Your task to perform on an android device: delete browsing data in the chrome app Image 0: 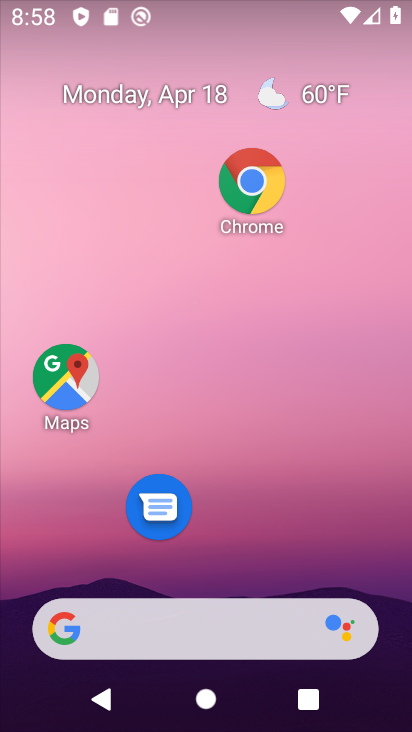
Step 0: click (255, 209)
Your task to perform on an android device: delete browsing data in the chrome app Image 1: 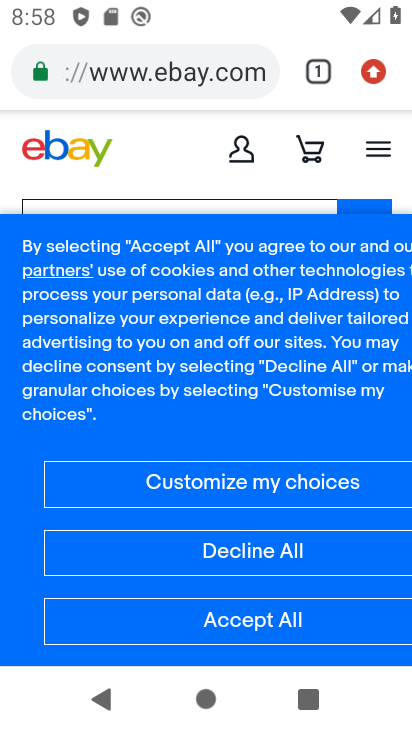
Step 1: drag from (371, 69) to (209, 499)
Your task to perform on an android device: delete browsing data in the chrome app Image 2: 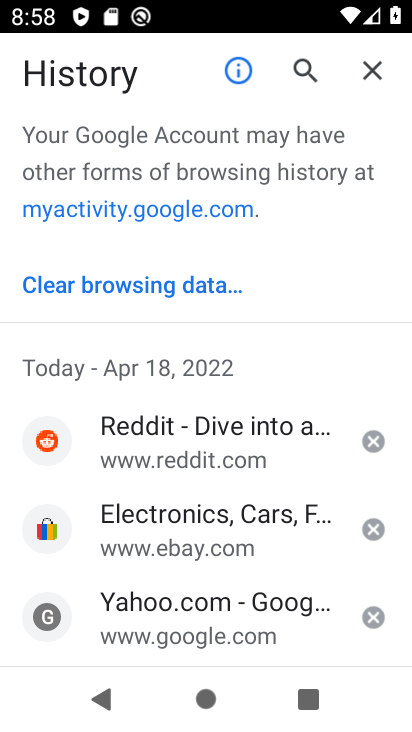
Step 2: click (155, 284)
Your task to perform on an android device: delete browsing data in the chrome app Image 3: 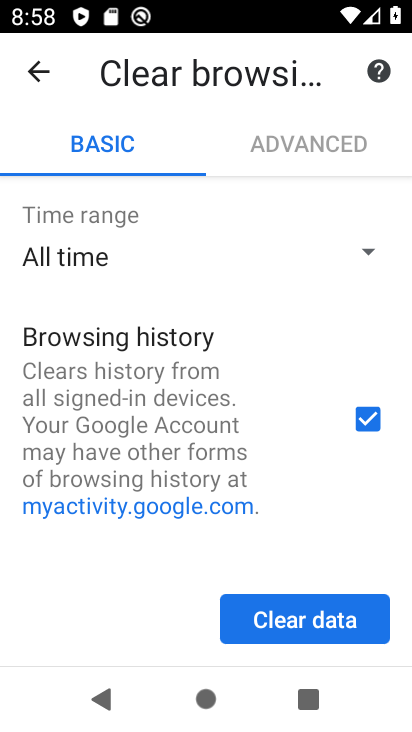
Step 3: click (321, 618)
Your task to perform on an android device: delete browsing data in the chrome app Image 4: 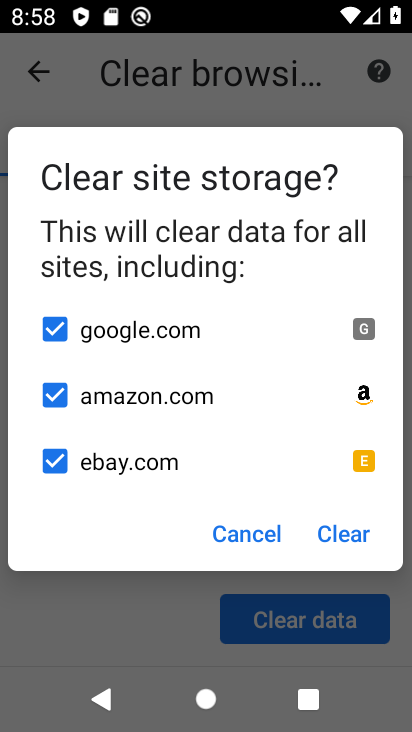
Step 4: click (350, 535)
Your task to perform on an android device: delete browsing data in the chrome app Image 5: 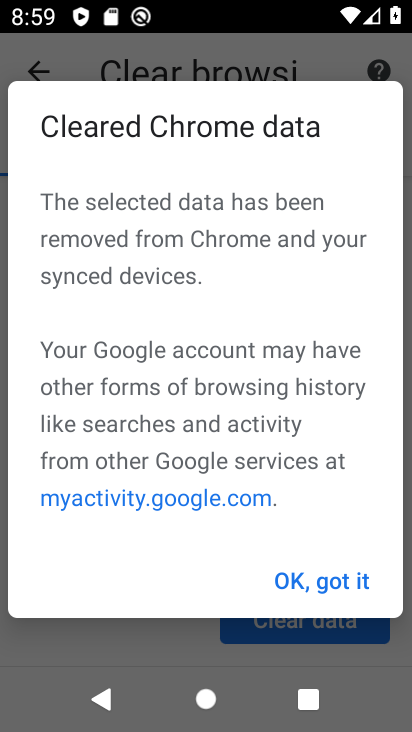
Step 5: click (310, 592)
Your task to perform on an android device: delete browsing data in the chrome app Image 6: 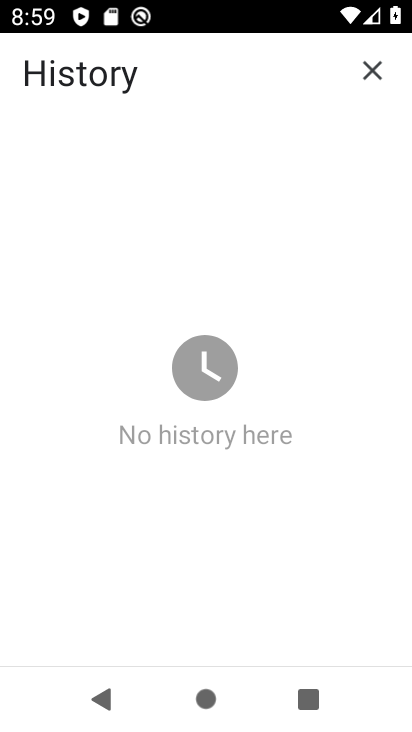
Step 6: task complete